Your task to perform on an android device: manage bookmarks in the chrome app Image 0: 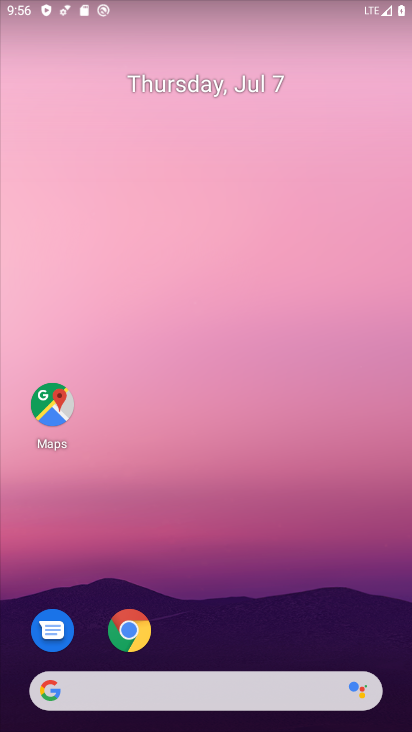
Step 0: press home button
Your task to perform on an android device: manage bookmarks in the chrome app Image 1: 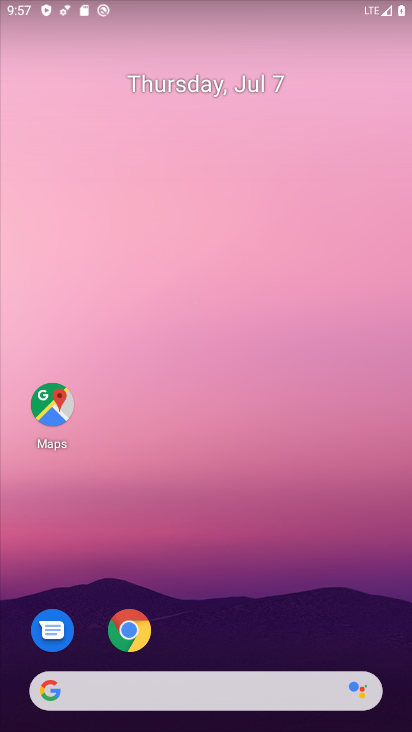
Step 1: click (131, 622)
Your task to perform on an android device: manage bookmarks in the chrome app Image 2: 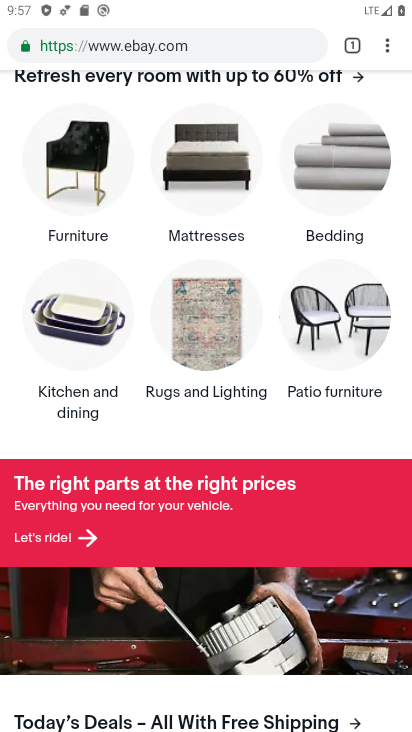
Step 2: click (382, 42)
Your task to perform on an android device: manage bookmarks in the chrome app Image 3: 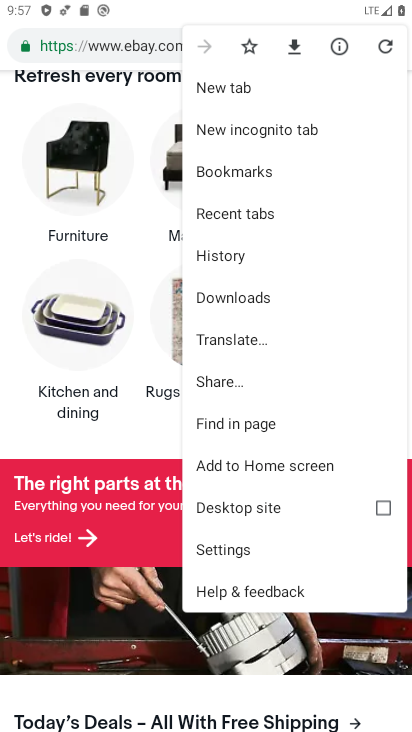
Step 3: click (266, 166)
Your task to perform on an android device: manage bookmarks in the chrome app Image 4: 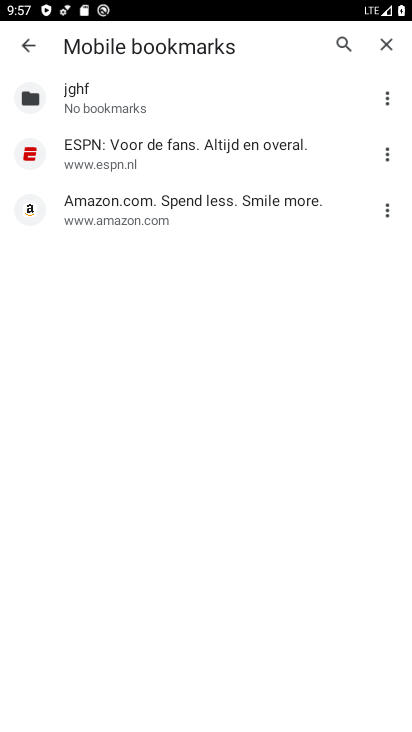
Step 4: task complete